Your task to perform on an android device: Open calendar and show me the second week of next month Image 0: 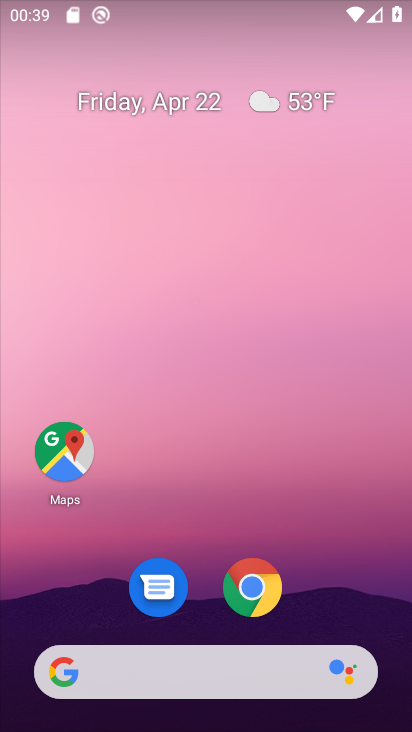
Step 0: drag from (337, 602) to (345, 260)
Your task to perform on an android device: Open calendar and show me the second week of next month Image 1: 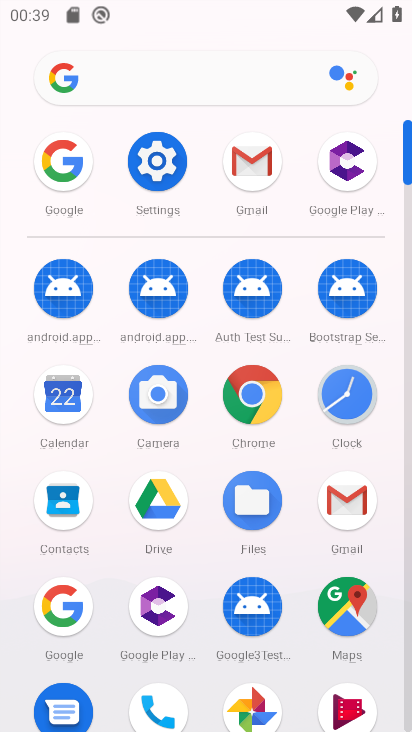
Step 1: click (76, 413)
Your task to perform on an android device: Open calendar and show me the second week of next month Image 2: 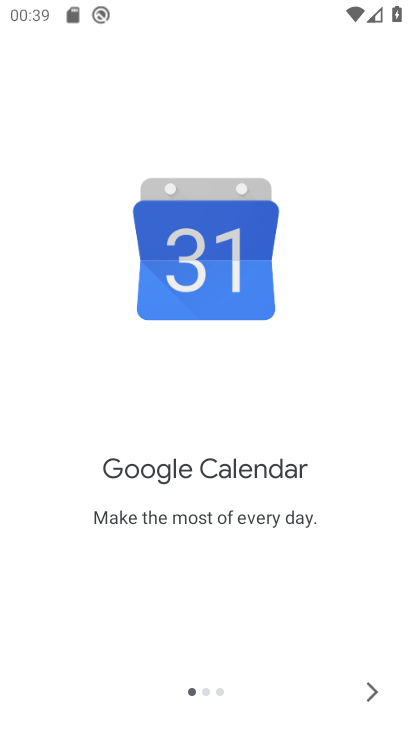
Step 2: click (369, 698)
Your task to perform on an android device: Open calendar and show me the second week of next month Image 3: 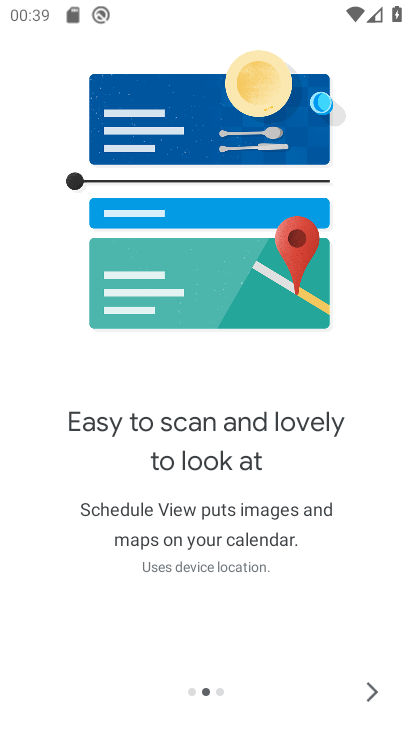
Step 3: click (369, 698)
Your task to perform on an android device: Open calendar and show me the second week of next month Image 4: 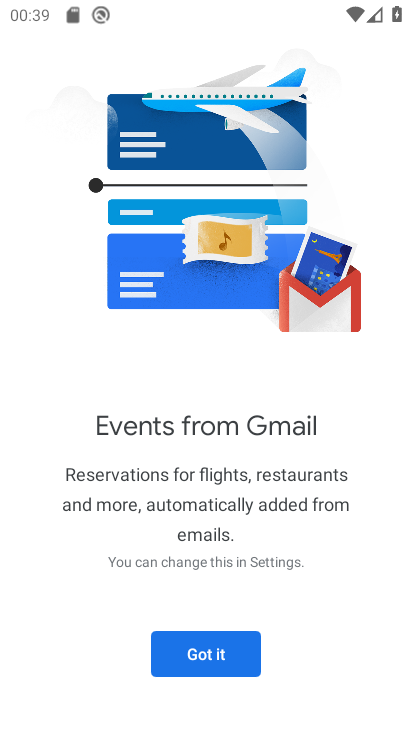
Step 4: click (182, 658)
Your task to perform on an android device: Open calendar and show me the second week of next month Image 5: 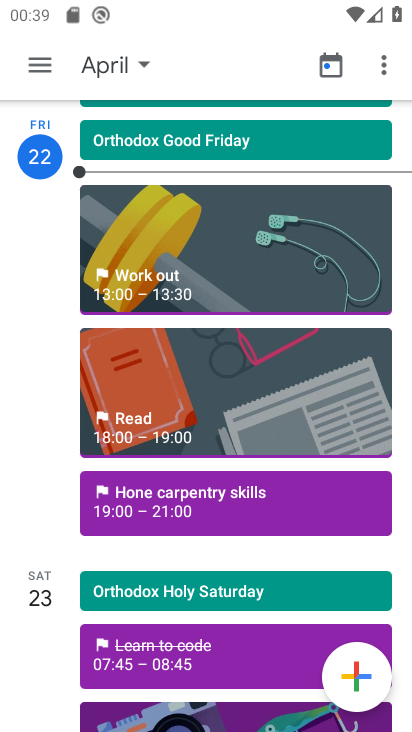
Step 5: click (134, 66)
Your task to perform on an android device: Open calendar and show me the second week of next month Image 6: 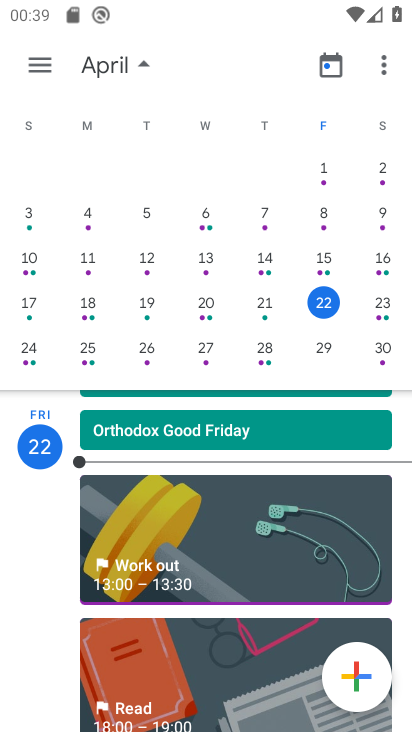
Step 6: drag from (285, 258) to (27, 258)
Your task to perform on an android device: Open calendar and show me the second week of next month Image 7: 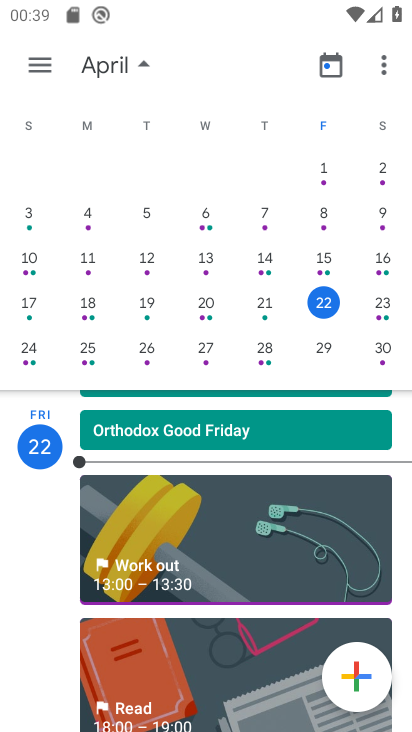
Step 7: drag from (345, 281) to (4, 206)
Your task to perform on an android device: Open calendar and show me the second week of next month Image 8: 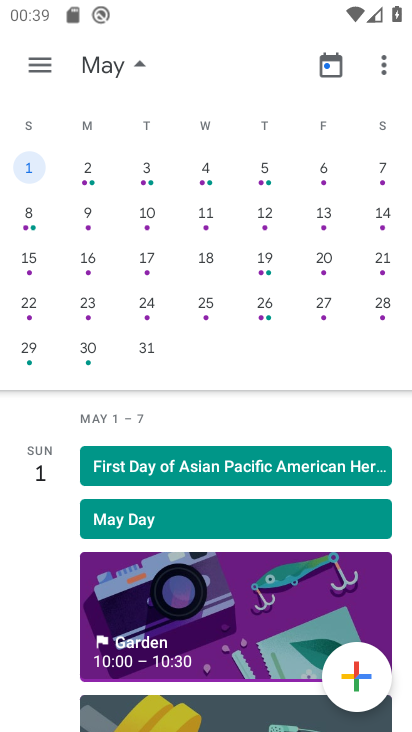
Step 8: click (36, 225)
Your task to perform on an android device: Open calendar and show me the second week of next month Image 9: 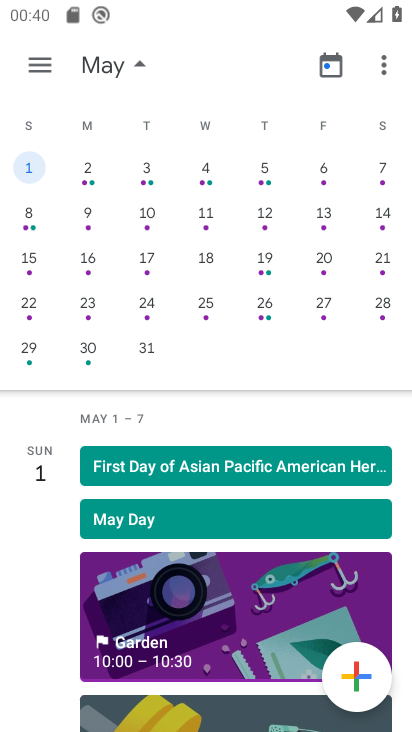
Step 9: click (90, 218)
Your task to perform on an android device: Open calendar and show me the second week of next month Image 10: 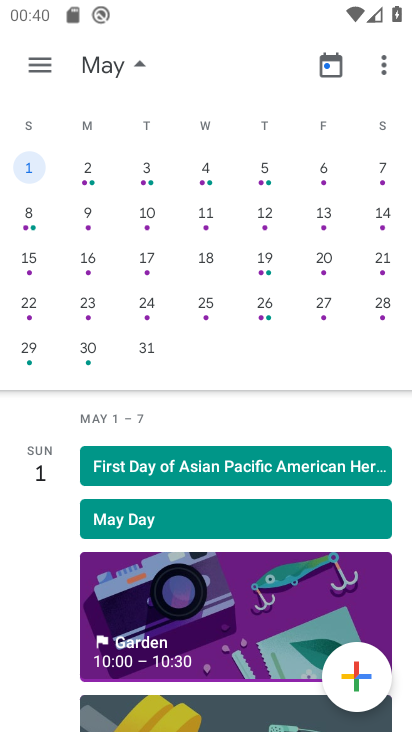
Step 10: click (145, 232)
Your task to perform on an android device: Open calendar and show me the second week of next month Image 11: 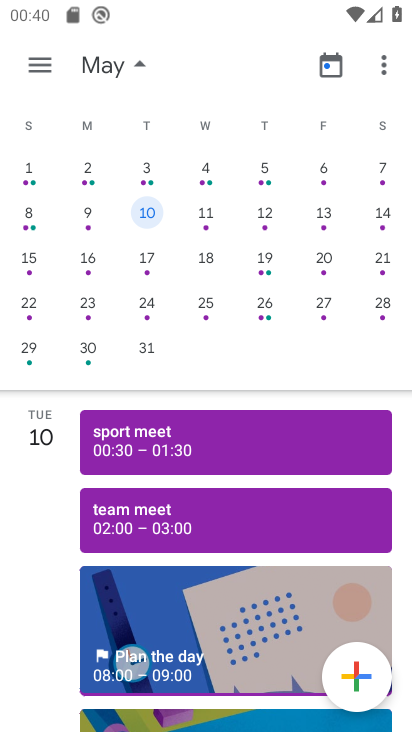
Step 11: click (199, 235)
Your task to perform on an android device: Open calendar and show me the second week of next month Image 12: 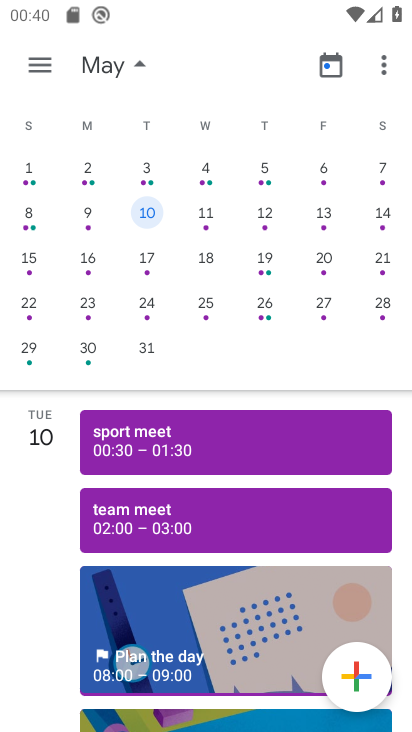
Step 12: click (205, 220)
Your task to perform on an android device: Open calendar and show me the second week of next month Image 13: 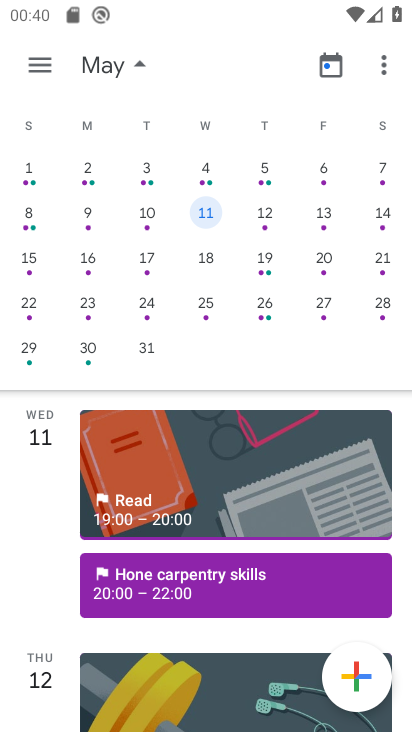
Step 13: click (269, 221)
Your task to perform on an android device: Open calendar and show me the second week of next month Image 14: 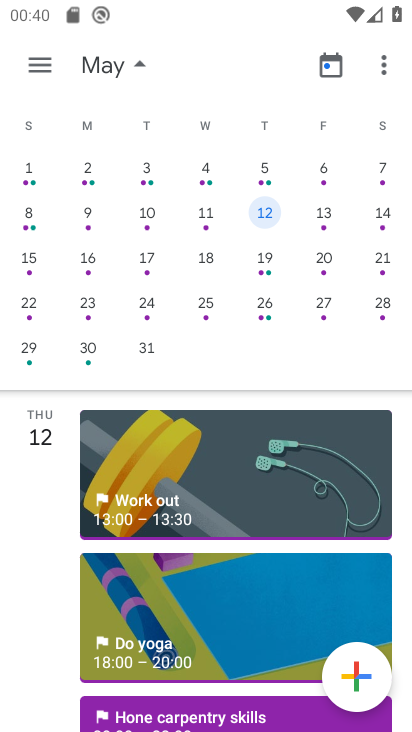
Step 14: click (319, 224)
Your task to perform on an android device: Open calendar and show me the second week of next month Image 15: 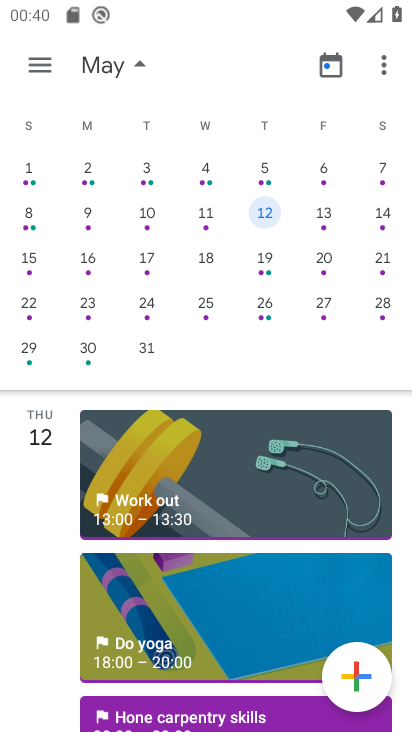
Step 15: click (388, 228)
Your task to perform on an android device: Open calendar and show me the second week of next month Image 16: 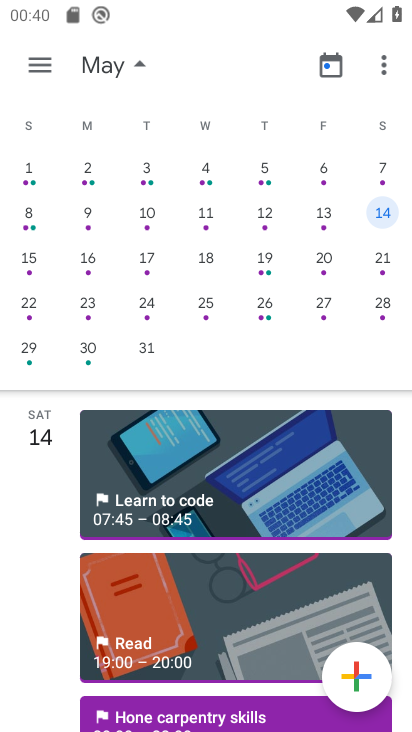
Step 16: task complete